Your task to perform on an android device: turn on translation in the chrome app Image 0: 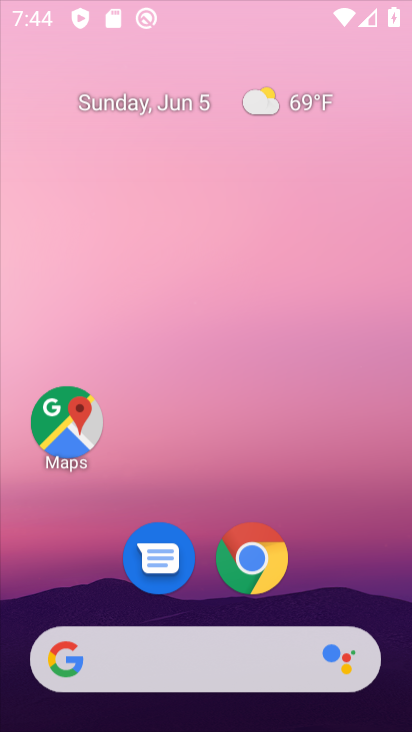
Step 0: click (322, 89)
Your task to perform on an android device: turn on translation in the chrome app Image 1: 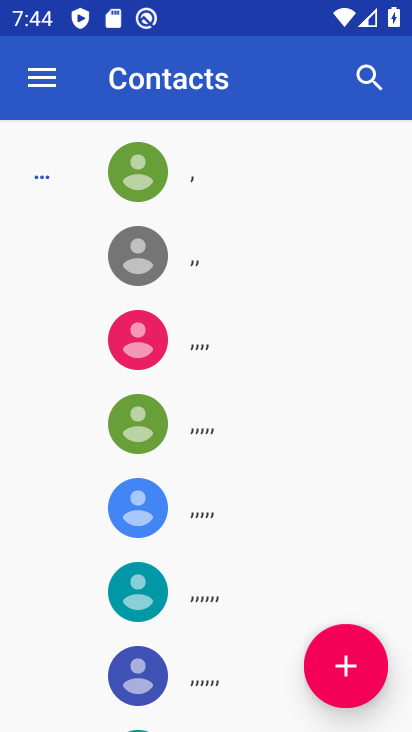
Step 1: press home button
Your task to perform on an android device: turn on translation in the chrome app Image 2: 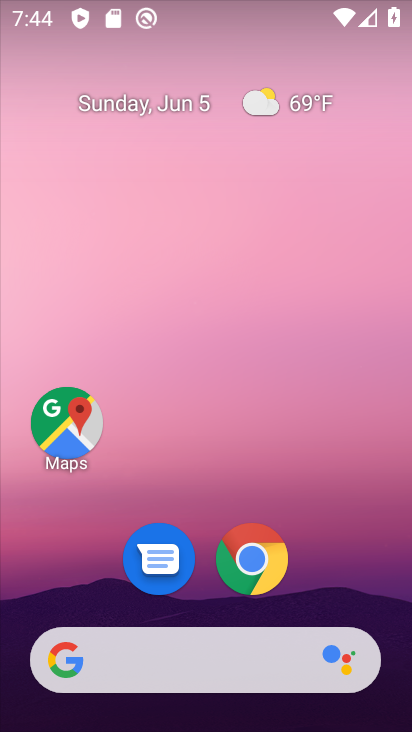
Step 2: click (251, 565)
Your task to perform on an android device: turn on translation in the chrome app Image 3: 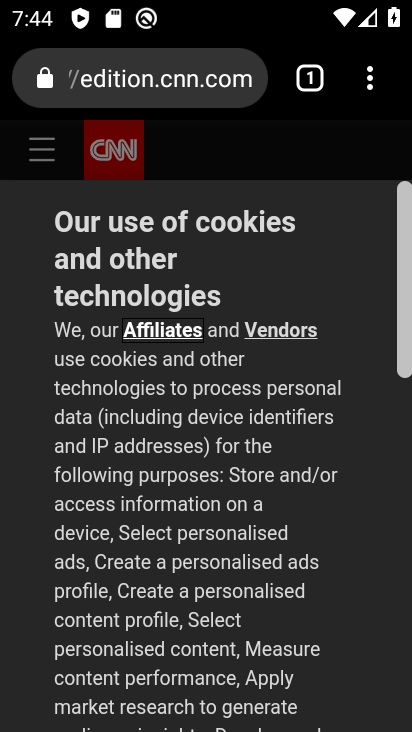
Step 3: drag from (378, 77) to (114, 602)
Your task to perform on an android device: turn on translation in the chrome app Image 4: 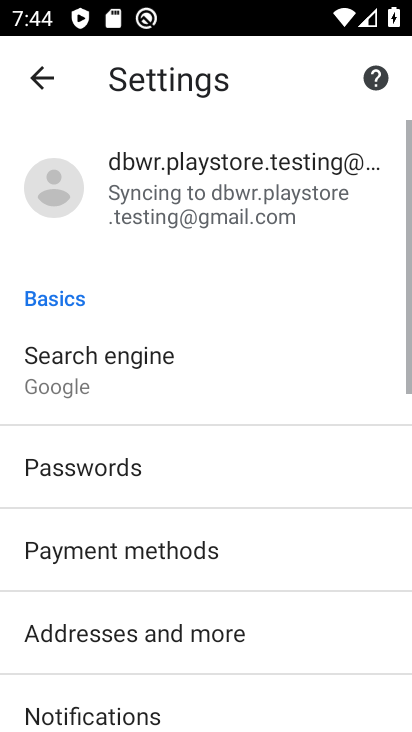
Step 4: drag from (121, 593) to (258, 88)
Your task to perform on an android device: turn on translation in the chrome app Image 5: 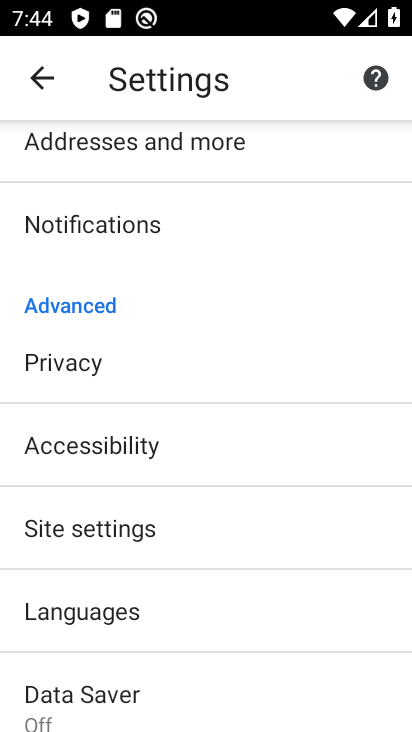
Step 5: click (124, 623)
Your task to perform on an android device: turn on translation in the chrome app Image 6: 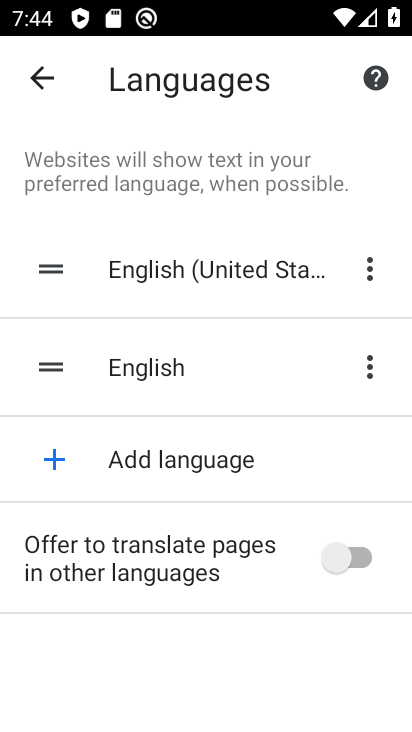
Step 6: click (333, 567)
Your task to perform on an android device: turn on translation in the chrome app Image 7: 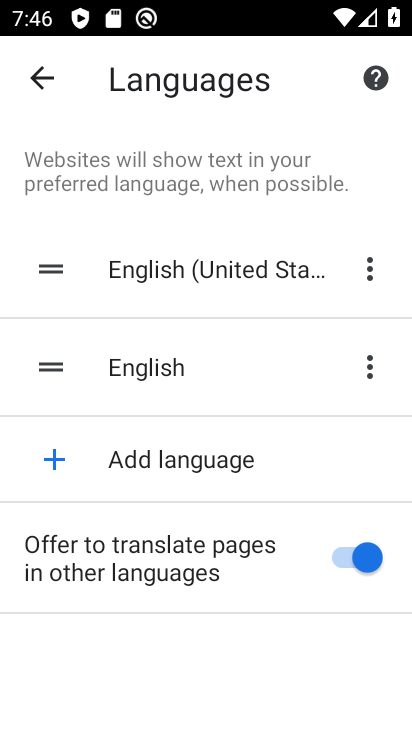
Step 7: task complete